Your task to perform on an android device: remove spam from my inbox in the gmail app Image 0: 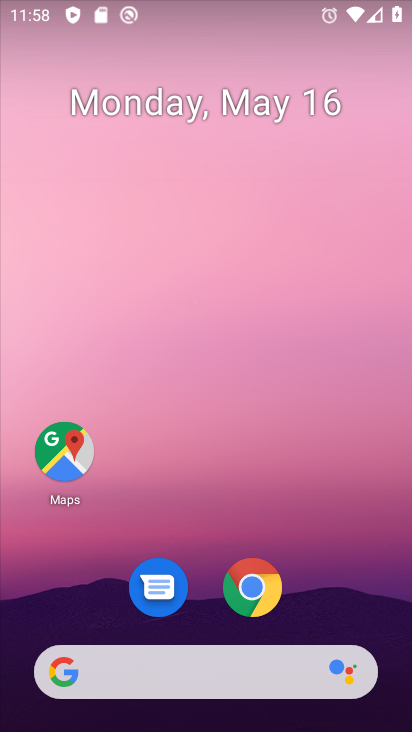
Step 0: drag from (401, 643) to (249, 65)
Your task to perform on an android device: remove spam from my inbox in the gmail app Image 1: 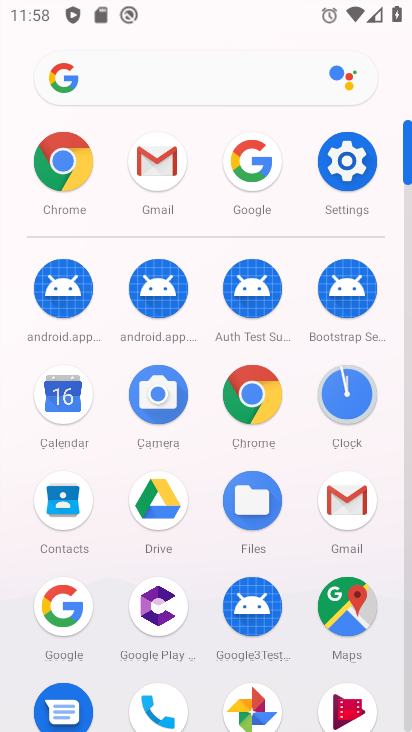
Step 1: click (344, 506)
Your task to perform on an android device: remove spam from my inbox in the gmail app Image 2: 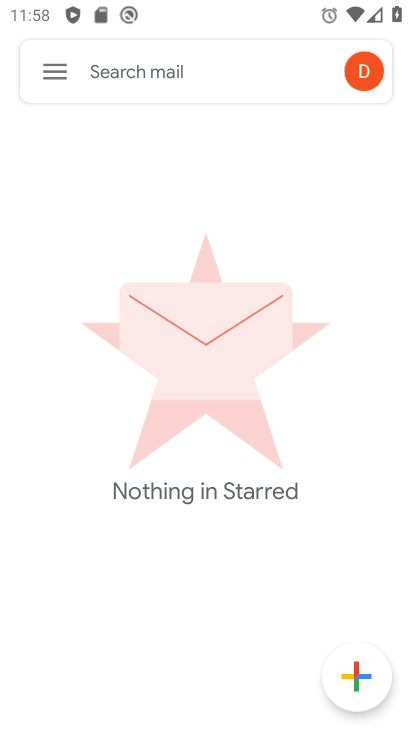
Step 2: click (44, 58)
Your task to perform on an android device: remove spam from my inbox in the gmail app Image 3: 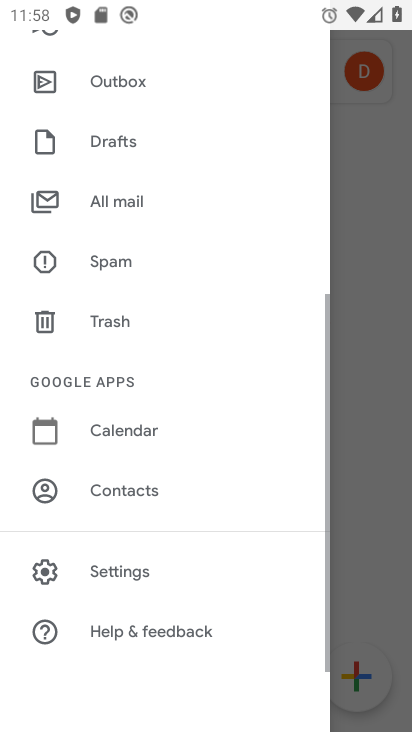
Step 3: drag from (90, 122) to (76, 690)
Your task to perform on an android device: remove spam from my inbox in the gmail app Image 4: 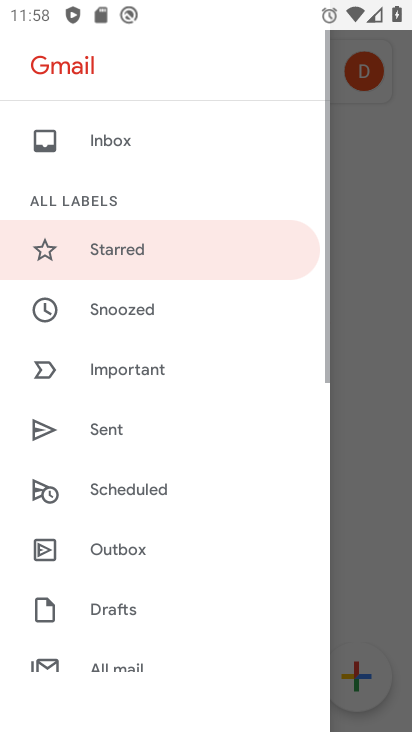
Step 4: click (118, 162)
Your task to perform on an android device: remove spam from my inbox in the gmail app Image 5: 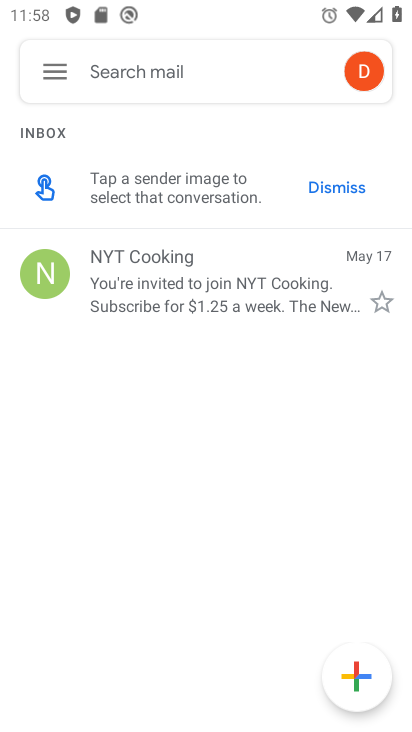
Step 5: click (207, 273)
Your task to perform on an android device: remove spam from my inbox in the gmail app Image 6: 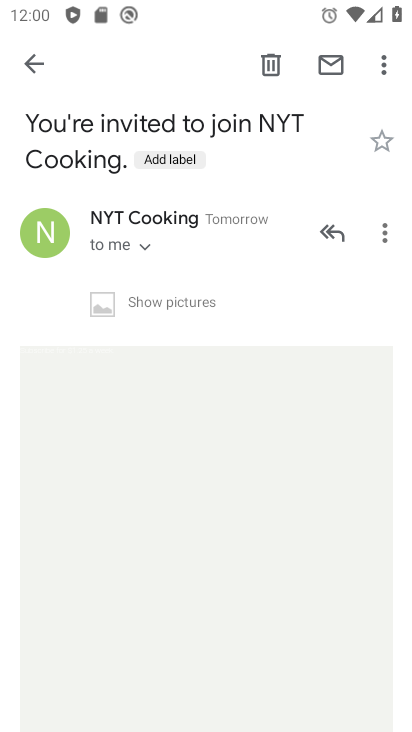
Step 6: task complete